Your task to perform on an android device: Open Maps and search for coffee Image 0: 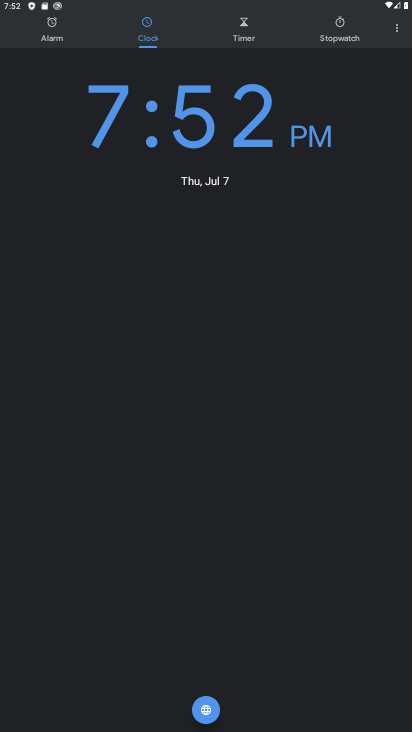
Step 0: press home button
Your task to perform on an android device: Open Maps and search for coffee Image 1: 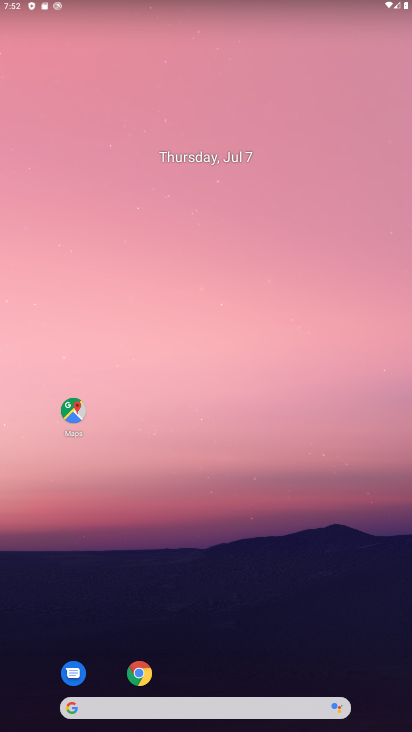
Step 1: click (186, 654)
Your task to perform on an android device: Open Maps and search for coffee Image 2: 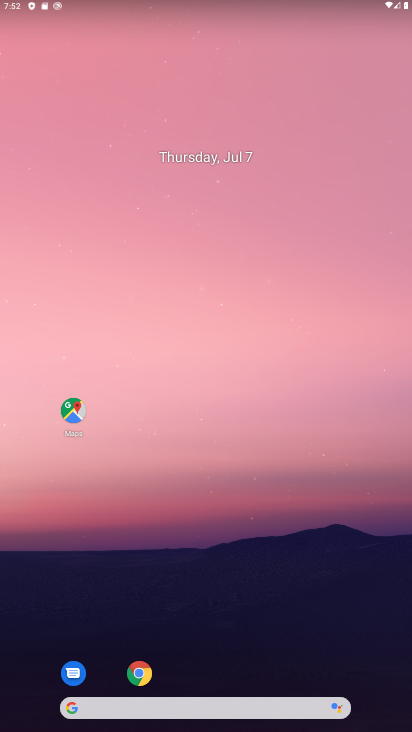
Step 2: drag from (211, 586) to (199, 13)
Your task to perform on an android device: Open Maps and search for coffee Image 3: 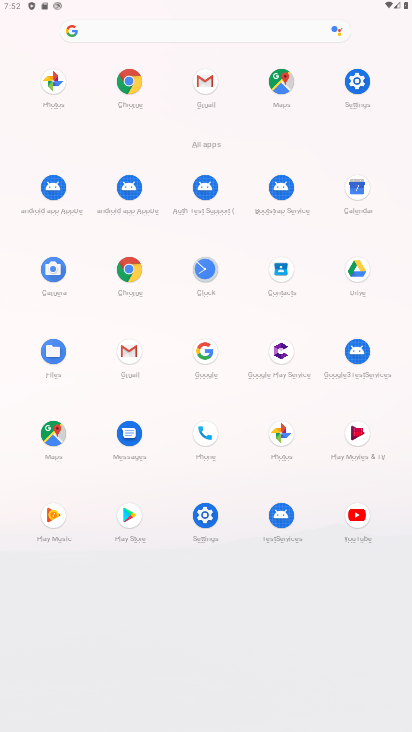
Step 3: click (283, 91)
Your task to perform on an android device: Open Maps and search for coffee Image 4: 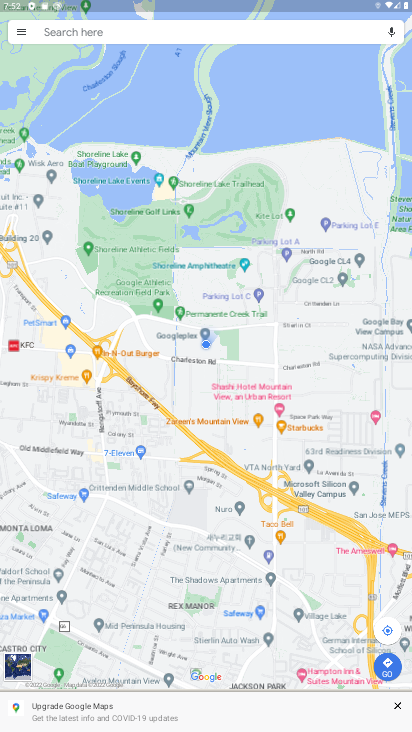
Step 4: click (89, 24)
Your task to perform on an android device: Open Maps and search for coffee Image 5: 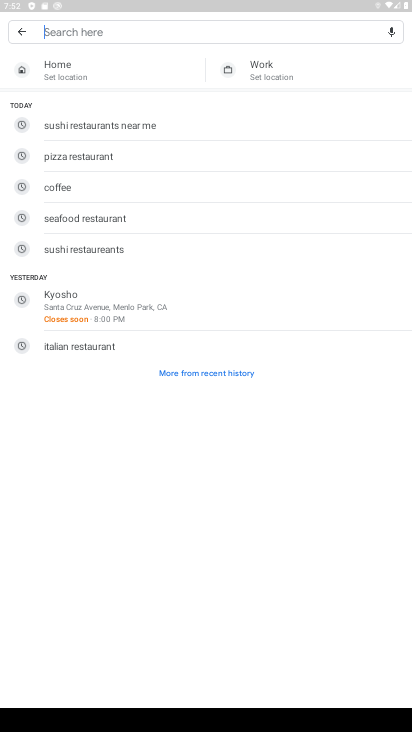
Step 5: click (58, 186)
Your task to perform on an android device: Open Maps and search for coffee Image 6: 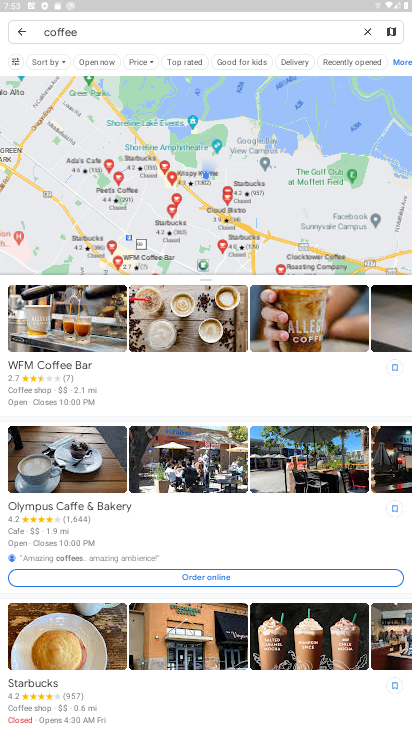
Step 6: task complete